Your task to perform on an android device: Open network settings Image 0: 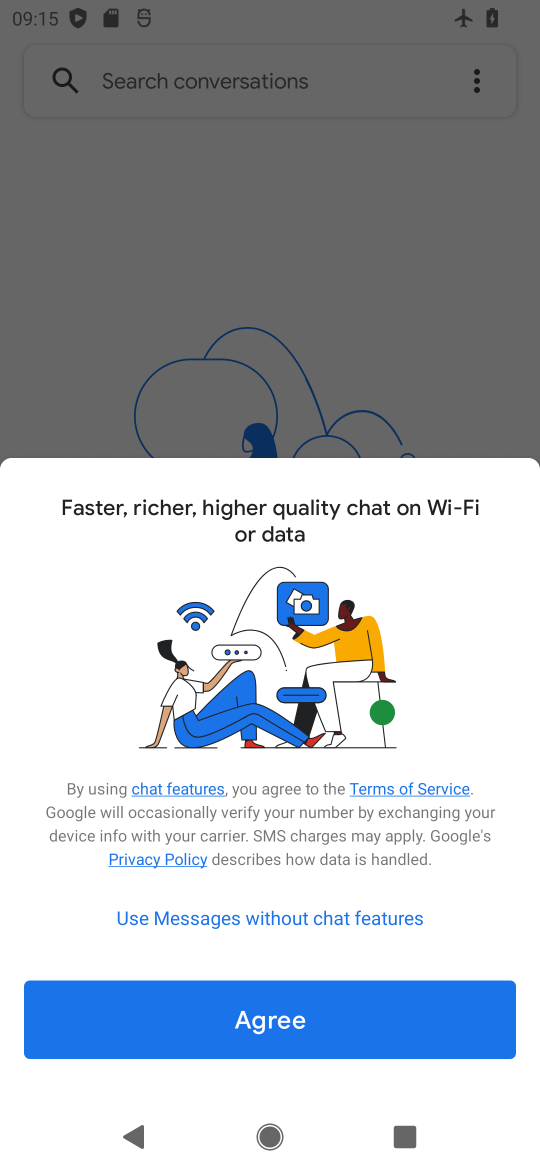
Step 0: press home button
Your task to perform on an android device: Open network settings Image 1: 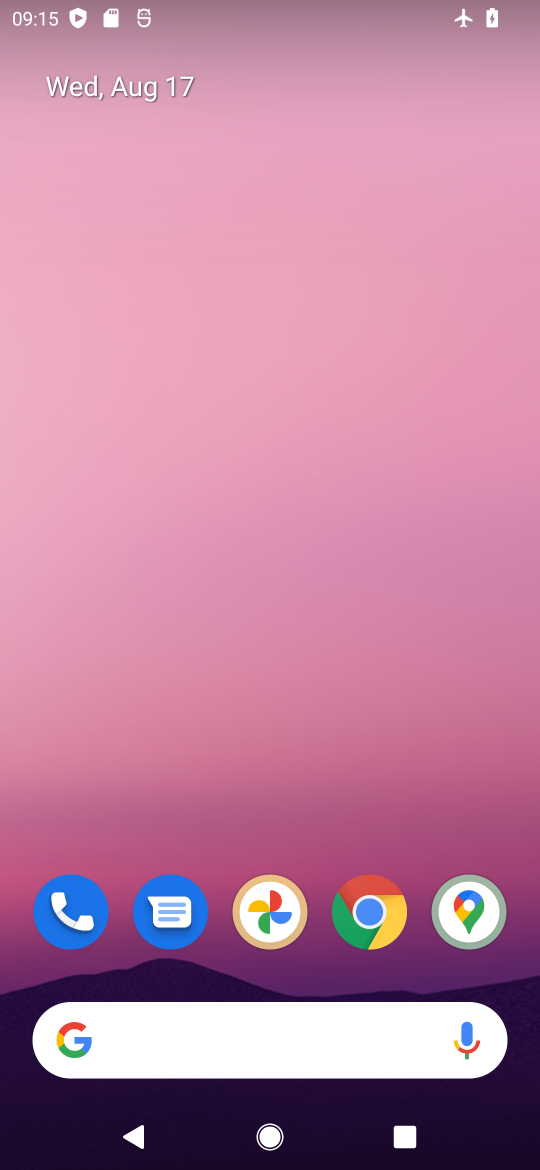
Step 1: drag from (201, 789) to (261, 349)
Your task to perform on an android device: Open network settings Image 2: 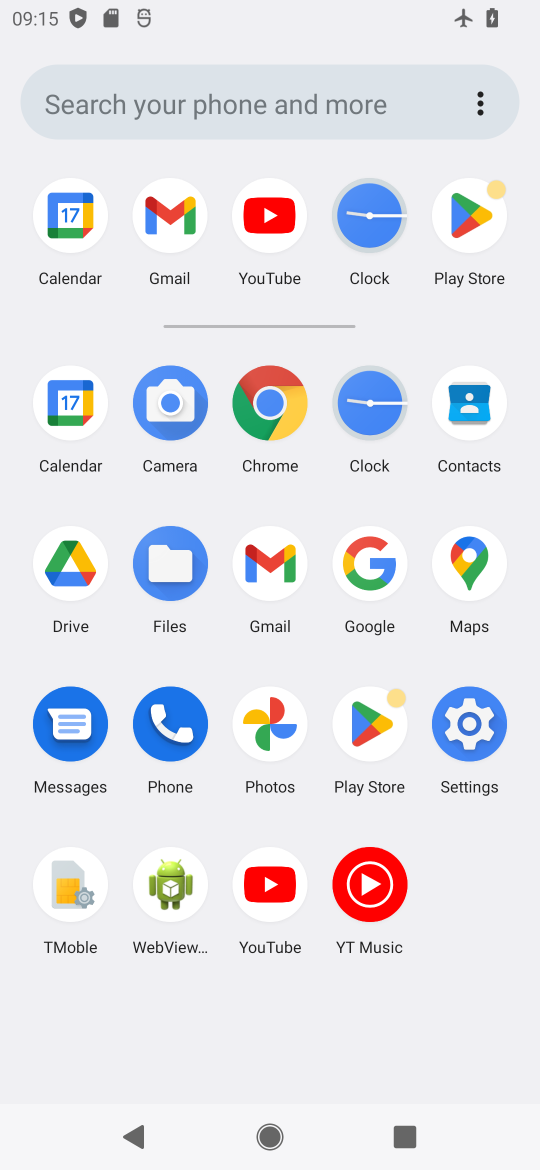
Step 2: click (464, 743)
Your task to perform on an android device: Open network settings Image 3: 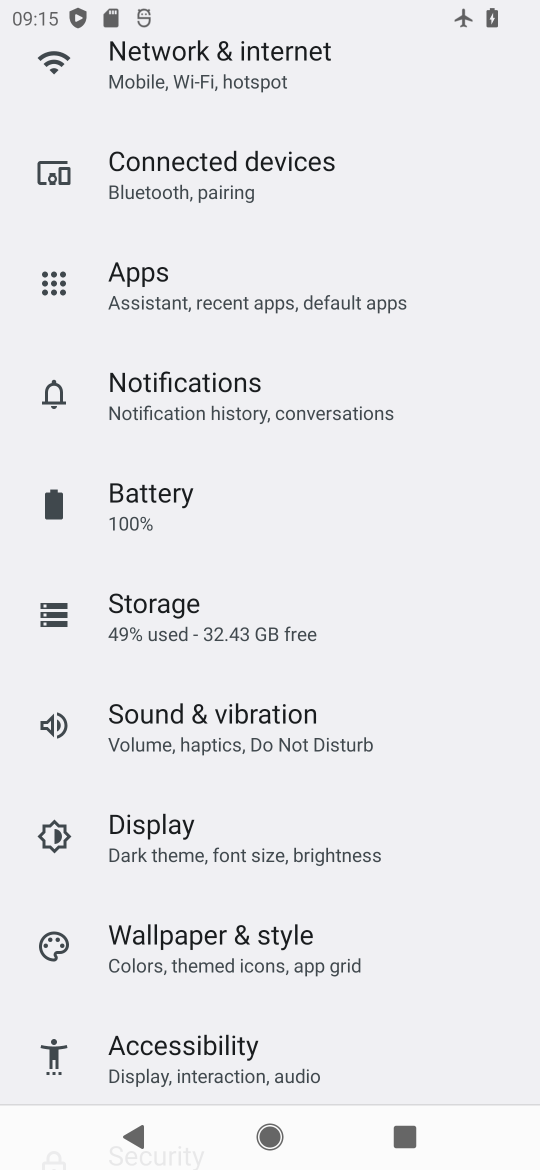
Step 3: click (160, 65)
Your task to perform on an android device: Open network settings Image 4: 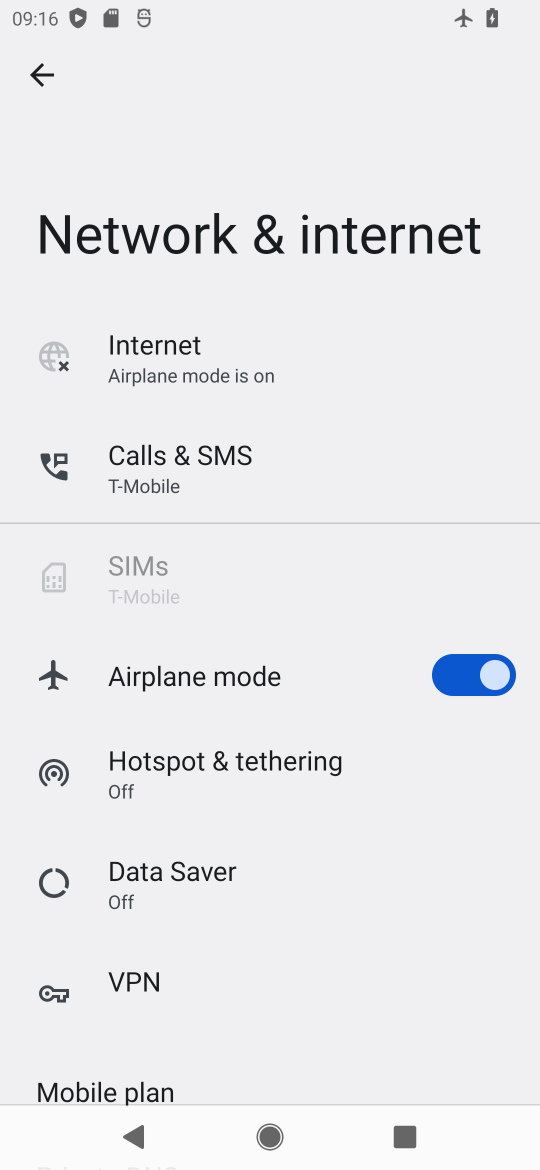
Step 4: task complete